Your task to perform on an android device: Go to calendar. Show me events next week Image 0: 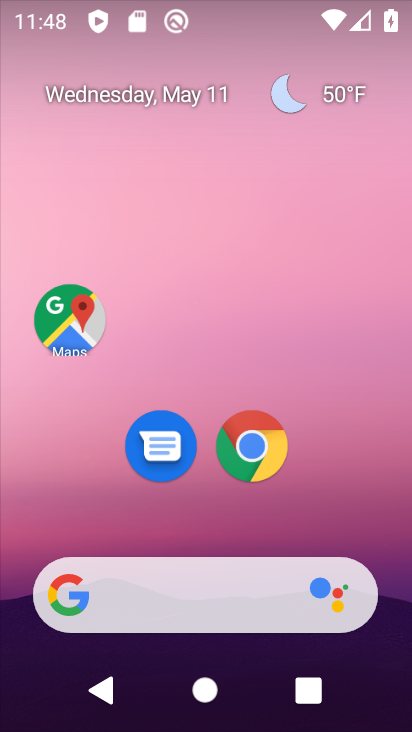
Step 0: drag from (303, 499) to (331, 189)
Your task to perform on an android device: Go to calendar. Show me events next week Image 1: 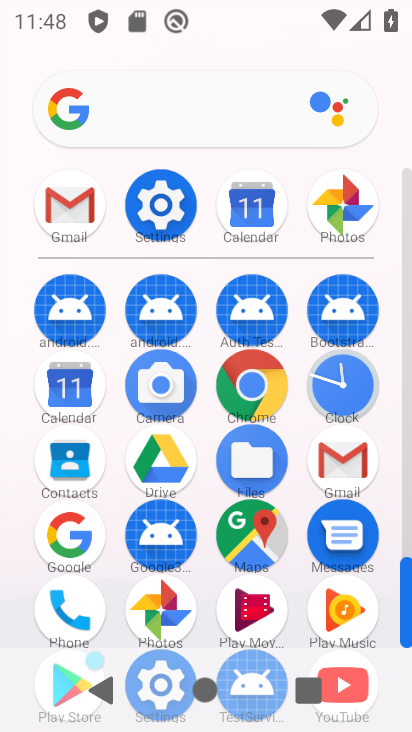
Step 1: click (45, 385)
Your task to perform on an android device: Go to calendar. Show me events next week Image 2: 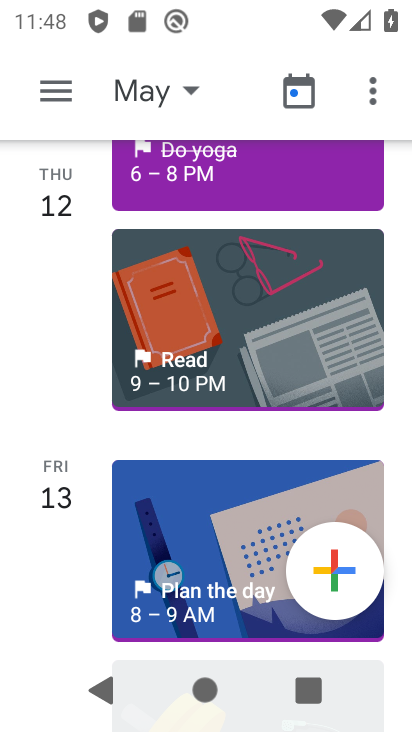
Step 2: click (57, 82)
Your task to perform on an android device: Go to calendar. Show me events next week Image 3: 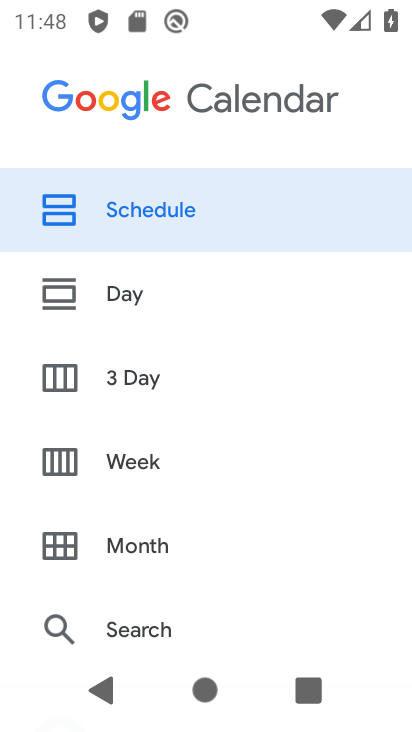
Step 3: drag from (220, 577) to (220, 310)
Your task to perform on an android device: Go to calendar. Show me events next week Image 4: 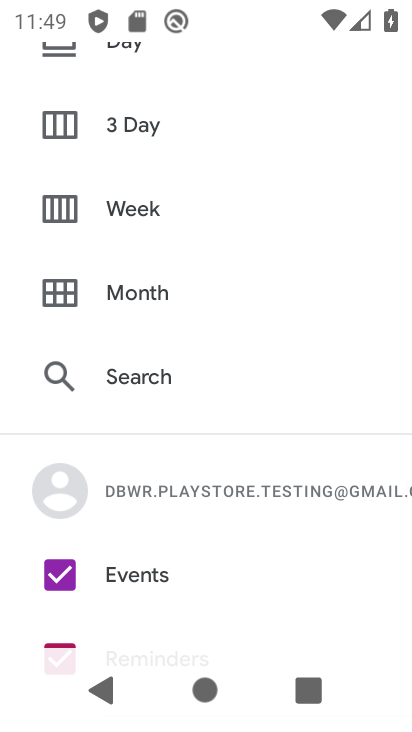
Step 4: click (124, 212)
Your task to perform on an android device: Go to calendar. Show me events next week Image 5: 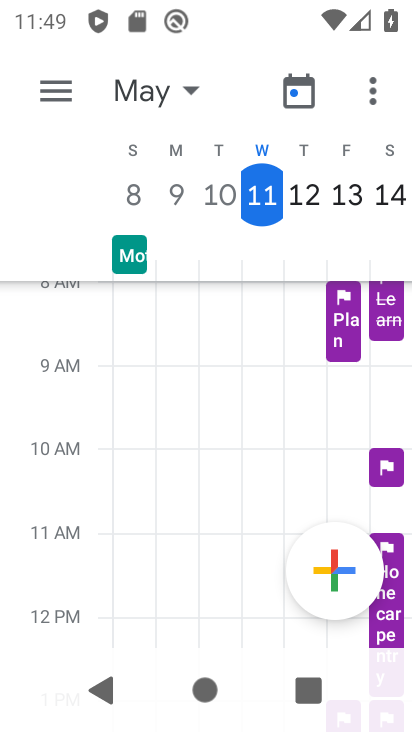
Step 5: task complete